Your task to perform on an android device: Search for seafood restaurants on Google Maps Image 0: 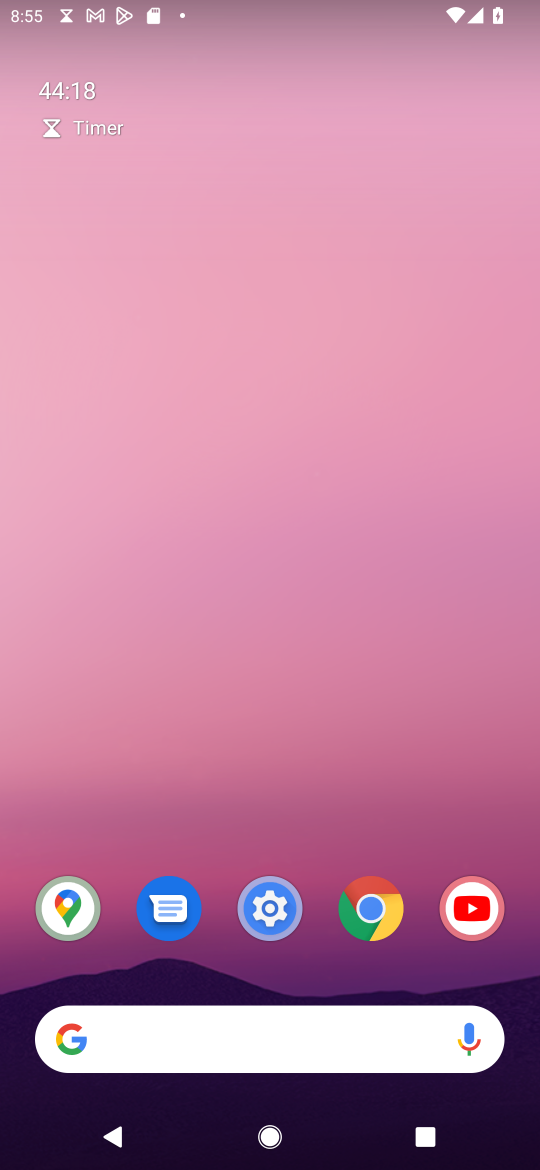
Step 0: click (80, 902)
Your task to perform on an android device: Search for seafood restaurants on Google Maps Image 1: 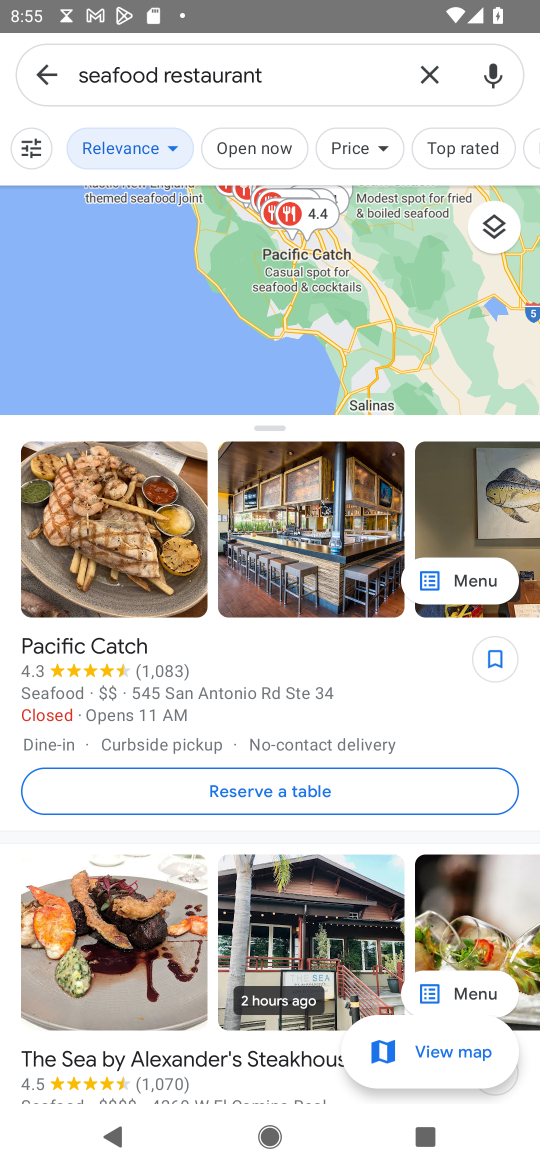
Step 1: task complete